Your task to perform on an android device: change alarm snooze length Image 0: 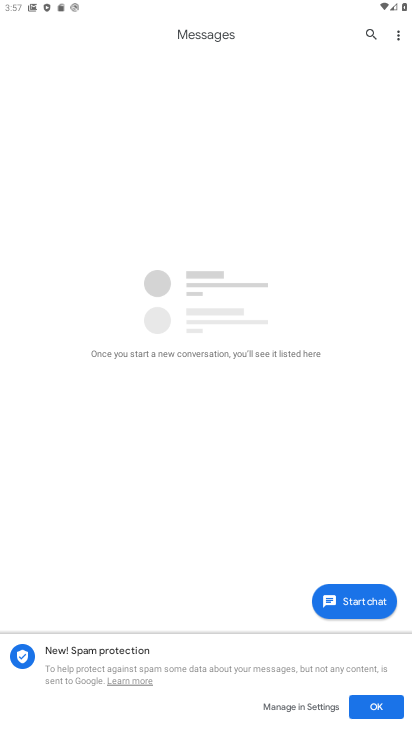
Step 0: press home button
Your task to perform on an android device: change alarm snooze length Image 1: 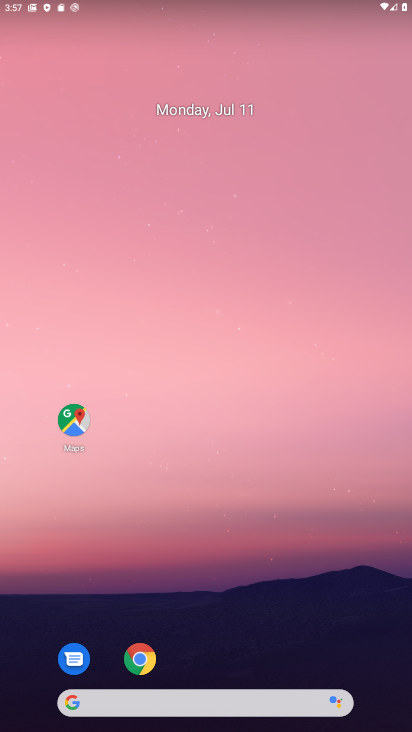
Step 1: drag from (199, 667) to (346, 60)
Your task to perform on an android device: change alarm snooze length Image 2: 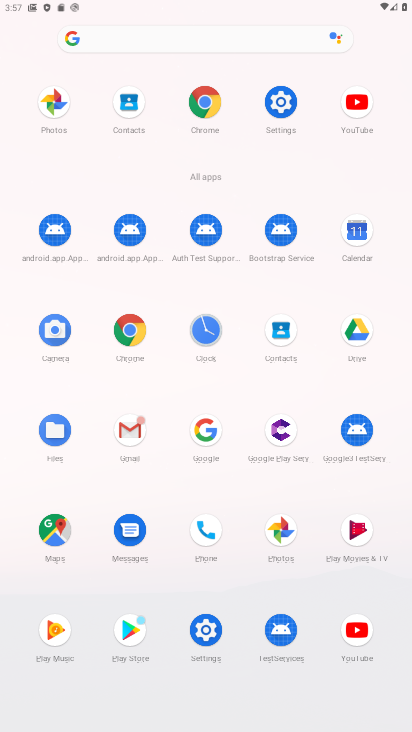
Step 2: click (210, 324)
Your task to perform on an android device: change alarm snooze length Image 3: 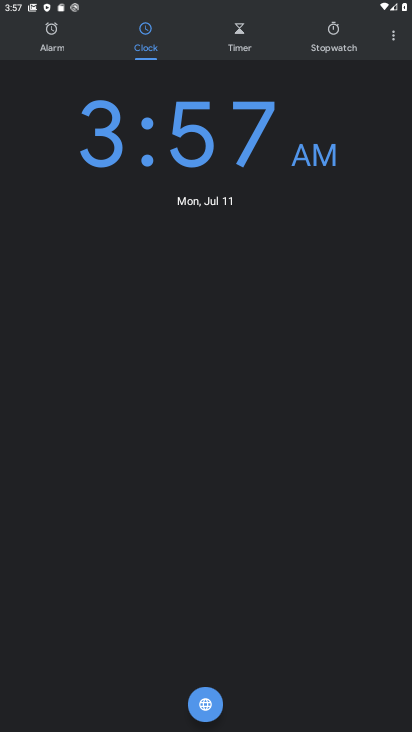
Step 3: click (388, 34)
Your task to perform on an android device: change alarm snooze length Image 4: 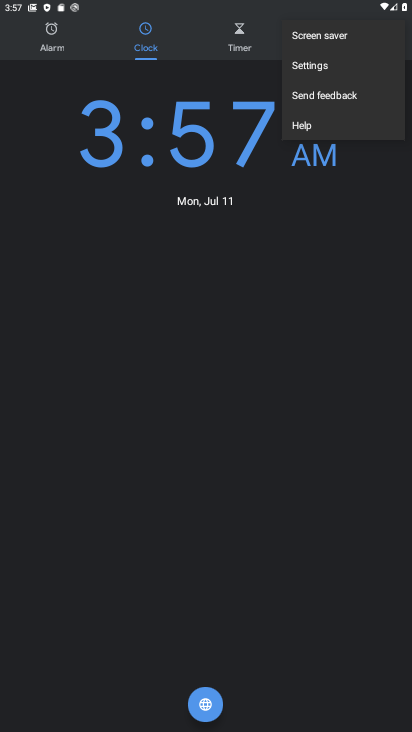
Step 4: click (318, 76)
Your task to perform on an android device: change alarm snooze length Image 5: 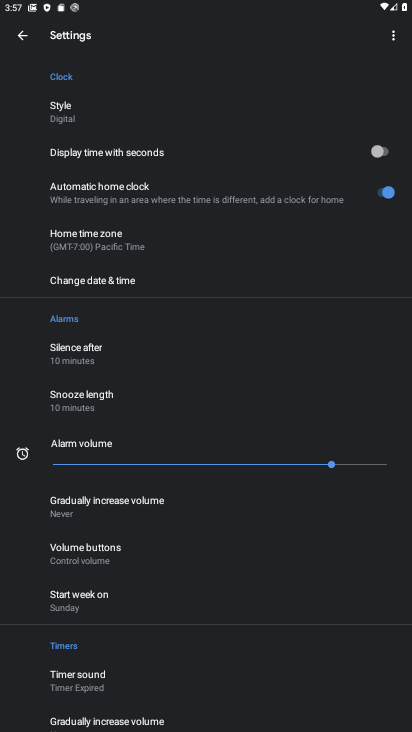
Step 5: click (177, 405)
Your task to perform on an android device: change alarm snooze length Image 6: 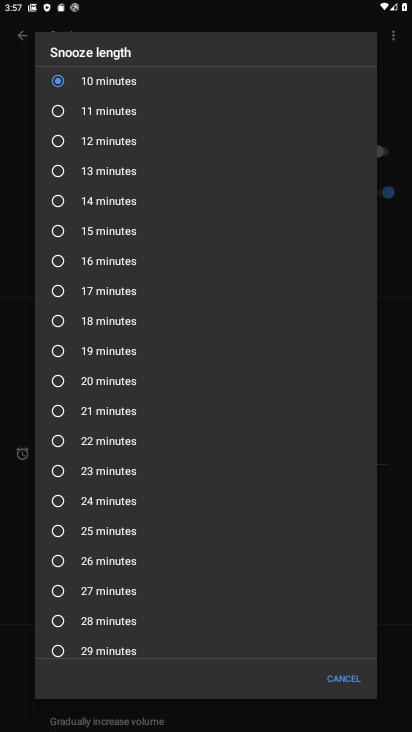
Step 6: click (138, 587)
Your task to perform on an android device: change alarm snooze length Image 7: 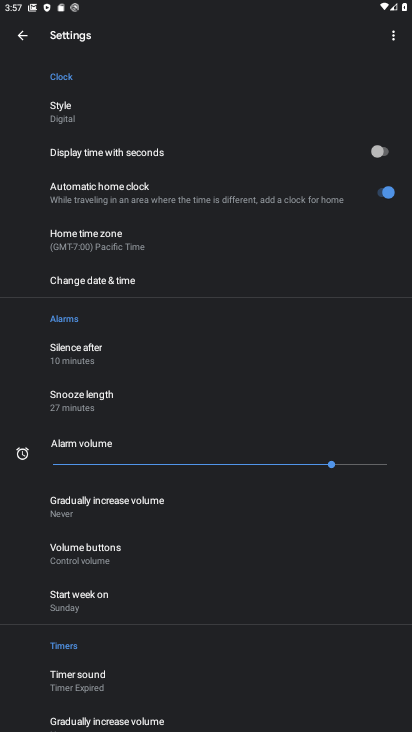
Step 7: task complete